Your task to perform on an android device: toggle improve location accuracy Image 0: 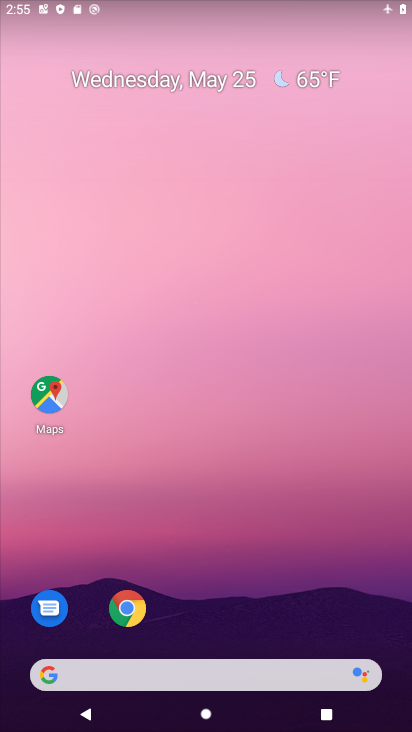
Step 0: drag from (282, 629) to (283, 4)
Your task to perform on an android device: toggle improve location accuracy Image 1: 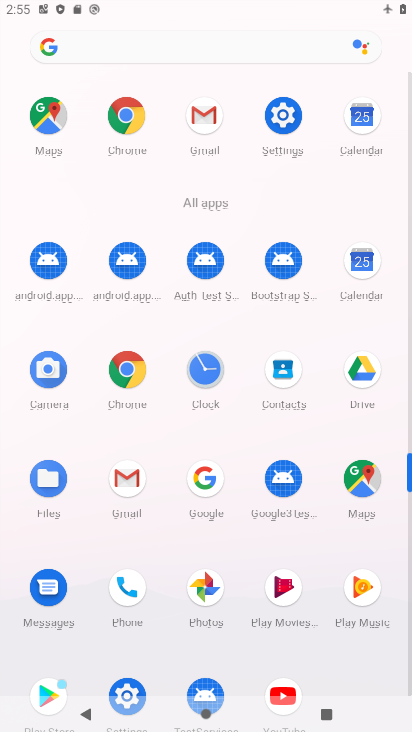
Step 1: click (287, 119)
Your task to perform on an android device: toggle improve location accuracy Image 2: 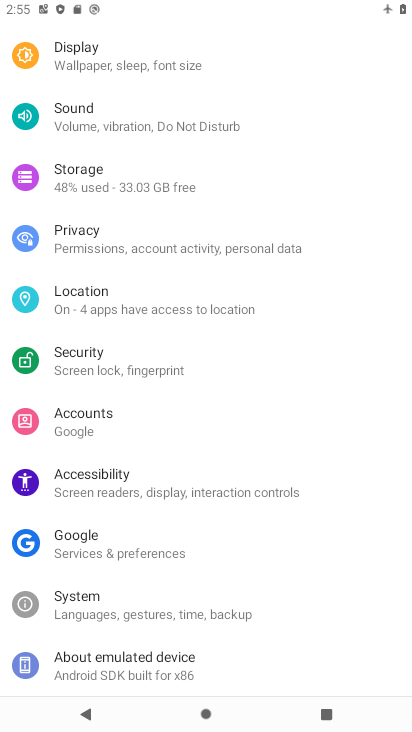
Step 2: click (119, 309)
Your task to perform on an android device: toggle improve location accuracy Image 3: 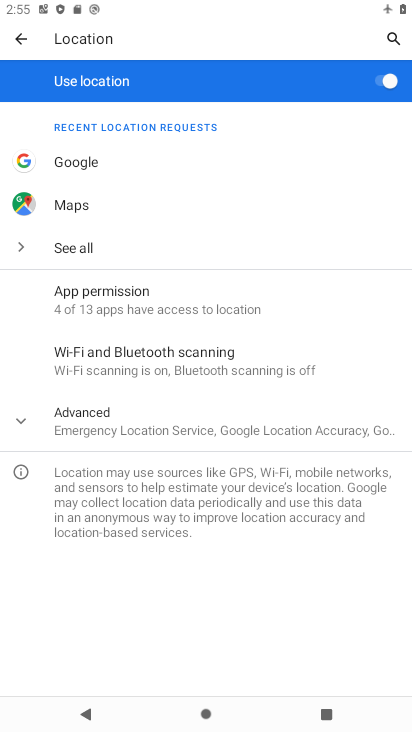
Step 3: click (23, 428)
Your task to perform on an android device: toggle improve location accuracy Image 4: 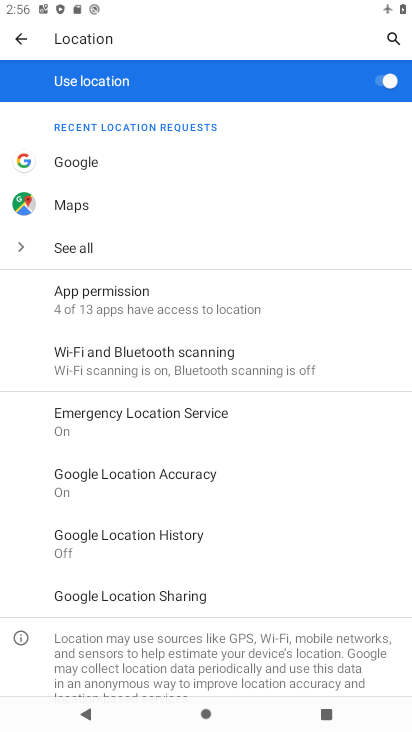
Step 4: click (118, 473)
Your task to perform on an android device: toggle improve location accuracy Image 5: 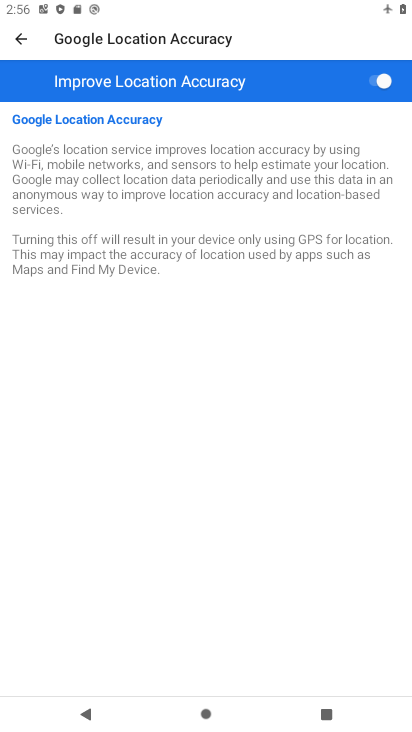
Step 5: click (372, 92)
Your task to perform on an android device: toggle improve location accuracy Image 6: 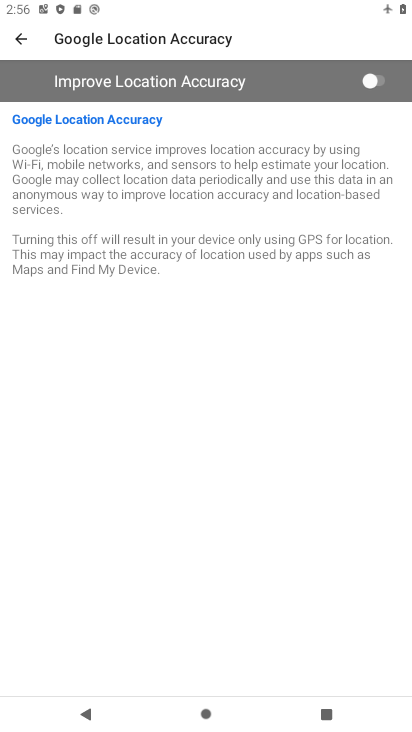
Step 6: task complete